Your task to perform on an android device: Open calendar and show me the first week of next month Image 0: 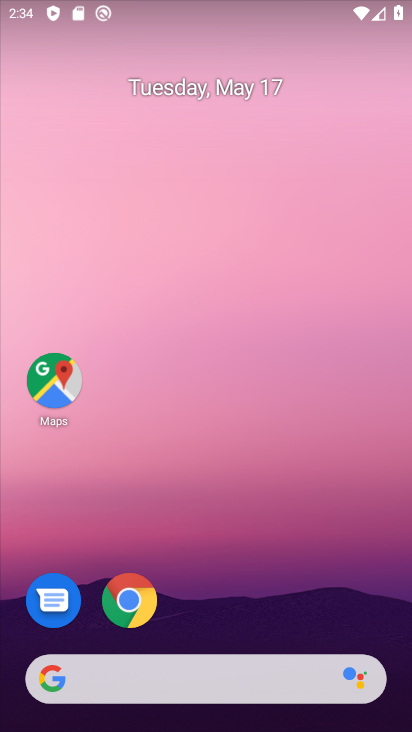
Step 0: drag from (176, 614) to (321, 69)
Your task to perform on an android device: Open calendar and show me the first week of next month Image 1: 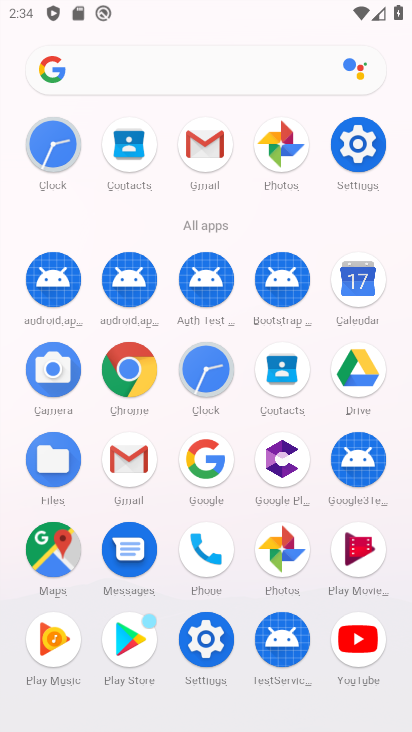
Step 1: drag from (247, 621) to (294, 414)
Your task to perform on an android device: Open calendar and show me the first week of next month Image 2: 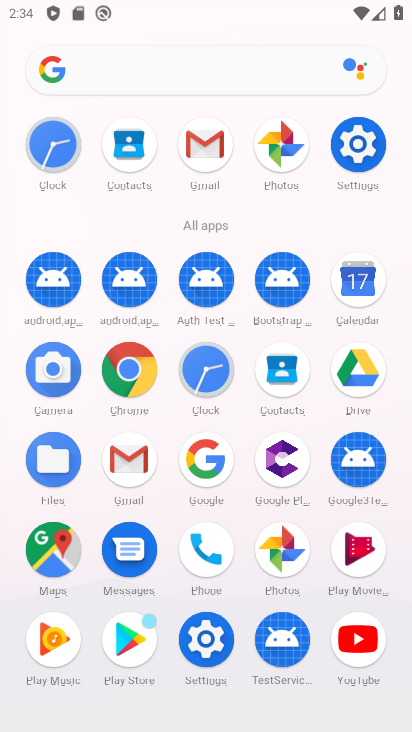
Step 2: click (385, 264)
Your task to perform on an android device: Open calendar and show me the first week of next month Image 3: 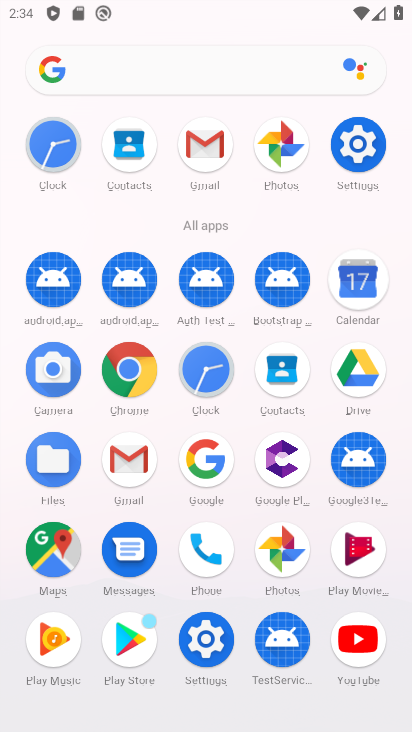
Step 3: click (375, 274)
Your task to perform on an android device: Open calendar and show me the first week of next month Image 4: 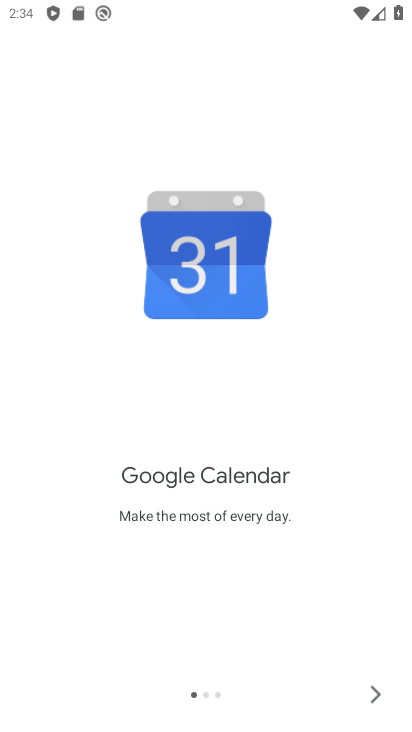
Step 4: click (378, 706)
Your task to perform on an android device: Open calendar and show me the first week of next month Image 5: 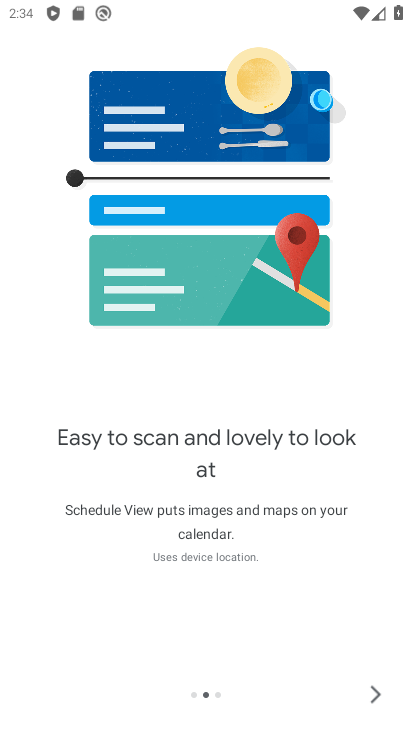
Step 5: click (378, 706)
Your task to perform on an android device: Open calendar and show me the first week of next month Image 6: 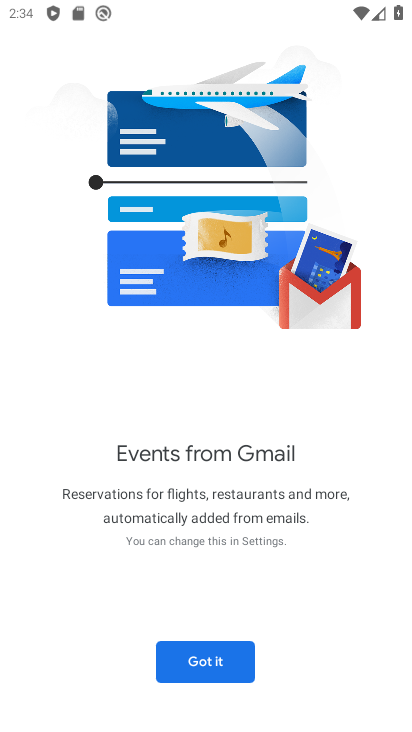
Step 6: click (211, 654)
Your task to perform on an android device: Open calendar and show me the first week of next month Image 7: 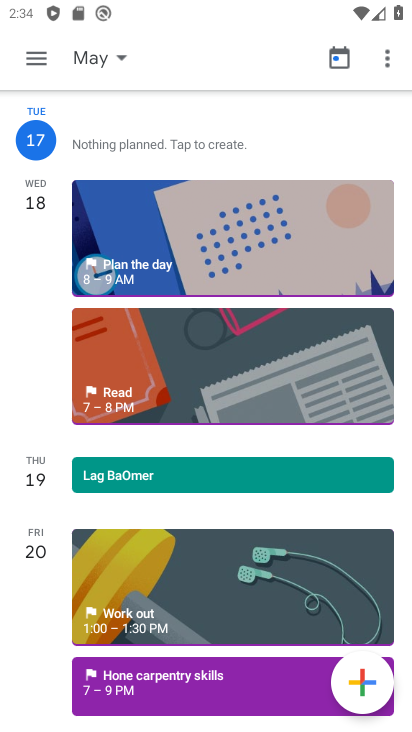
Step 7: click (102, 64)
Your task to perform on an android device: Open calendar and show me the first week of next month Image 8: 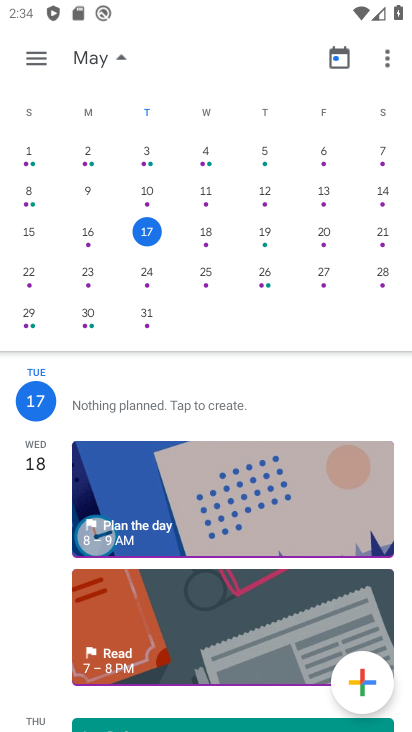
Step 8: drag from (376, 300) to (125, 282)
Your task to perform on an android device: Open calendar and show me the first week of next month Image 9: 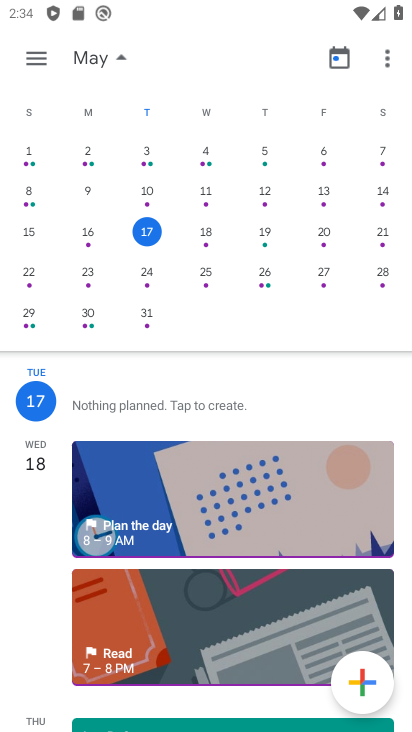
Step 9: drag from (361, 298) to (9, 252)
Your task to perform on an android device: Open calendar and show me the first week of next month Image 10: 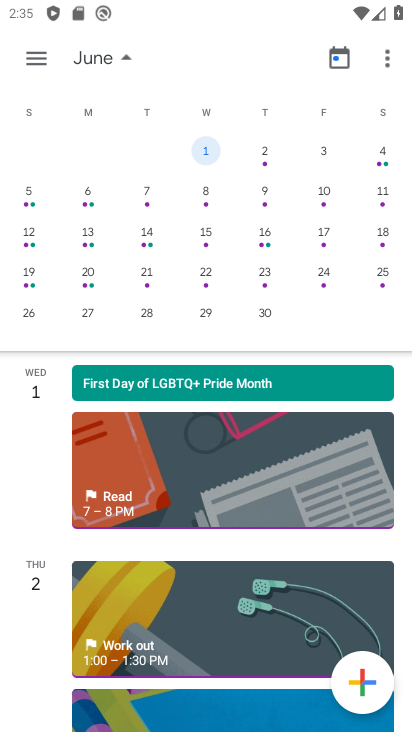
Step 10: click (31, 202)
Your task to perform on an android device: Open calendar and show me the first week of next month Image 11: 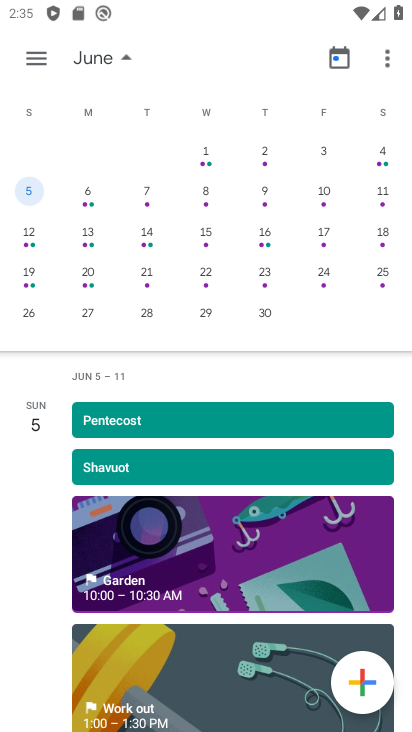
Step 11: click (40, 61)
Your task to perform on an android device: Open calendar and show me the first week of next month Image 12: 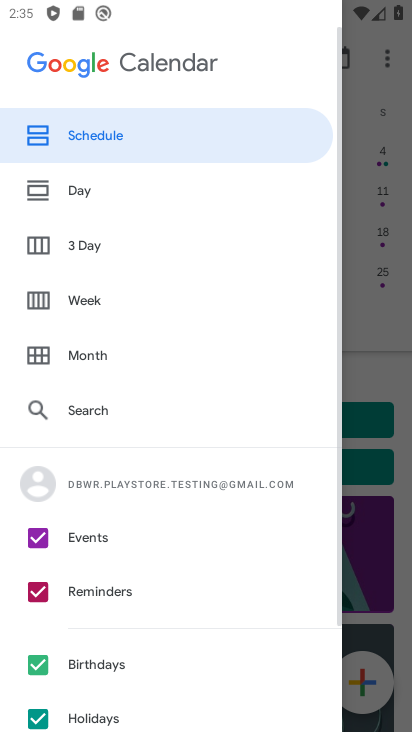
Step 12: click (88, 305)
Your task to perform on an android device: Open calendar and show me the first week of next month Image 13: 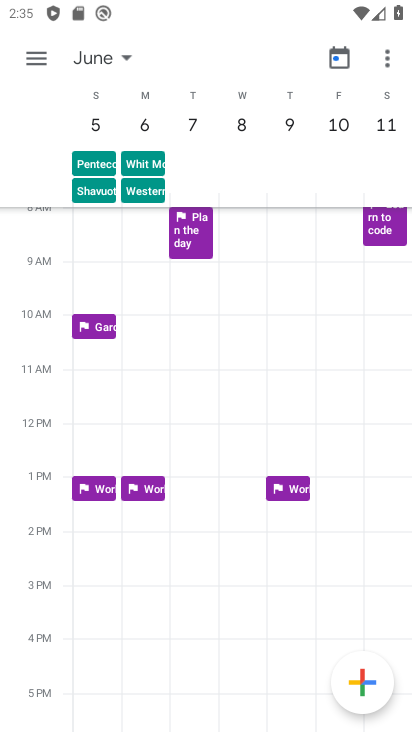
Step 13: task complete